Your task to perform on an android device: open chrome and create a bookmark for the current page Image 0: 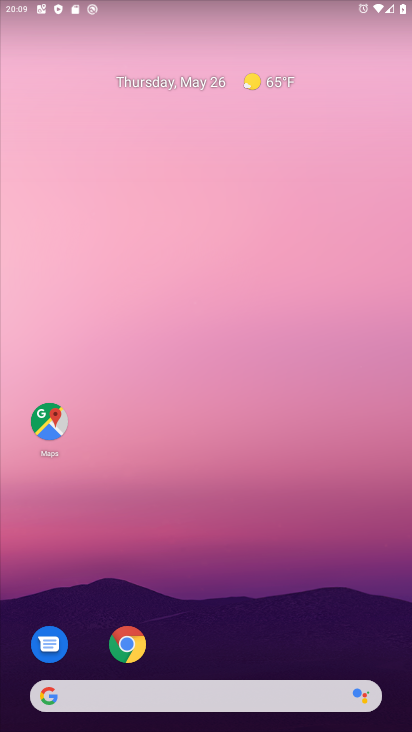
Step 0: click (227, 107)
Your task to perform on an android device: open chrome and create a bookmark for the current page Image 1: 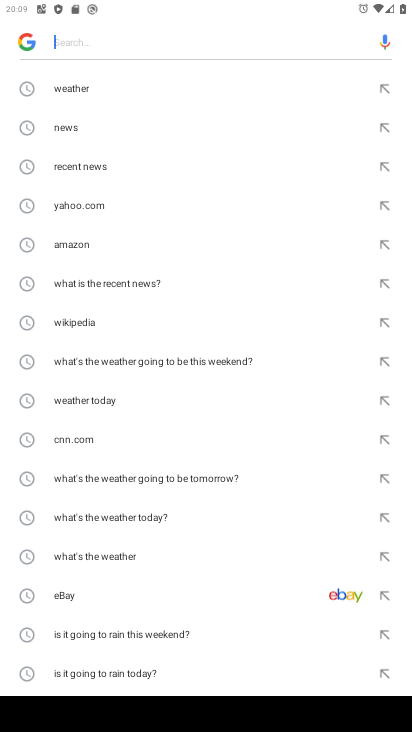
Step 1: press home button
Your task to perform on an android device: open chrome and create a bookmark for the current page Image 2: 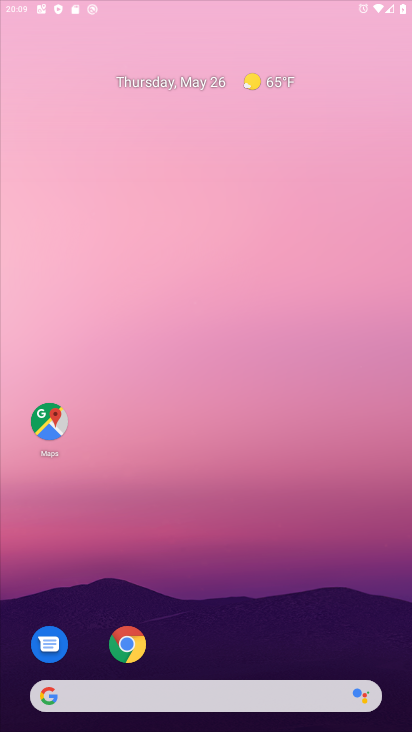
Step 2: drag from (193, 639) to (315, 20)
Your task to perform on an android device: open chrome and create a bookmark for the current page Image 3: 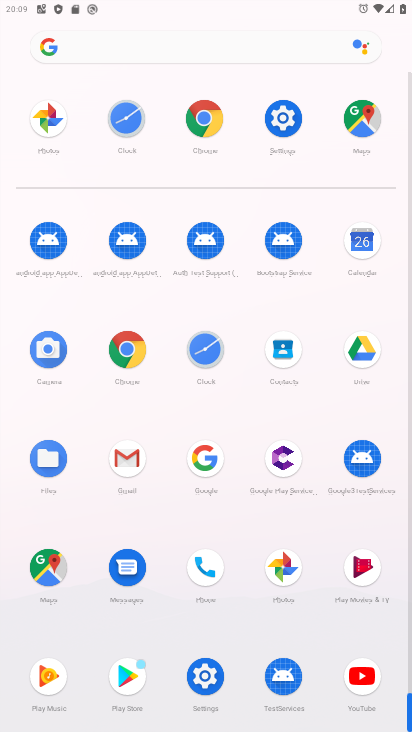
Step 3: click (128, 342)
Your task to perform on an android device: open chrome and create a bookmark for the current page Image 4: 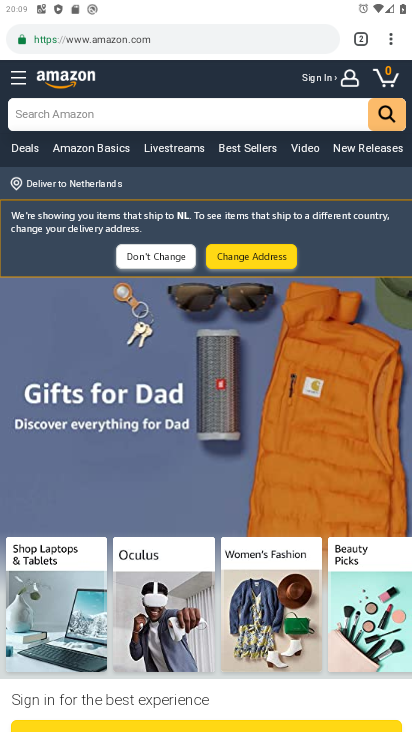
Step 4: click (390, 28)
Your task to perform on an android device: open chrome and create a bookmark for the current page Image 5: 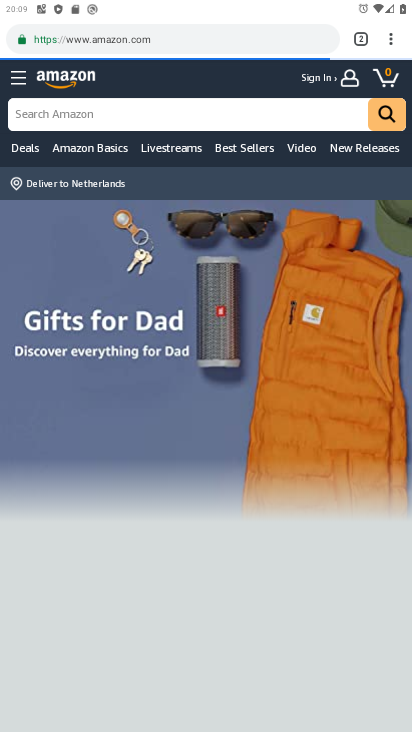
Step 5: click (390, 27)
Your task to perform on an android device: open chrome and create a bookmark for the current page Image 6: 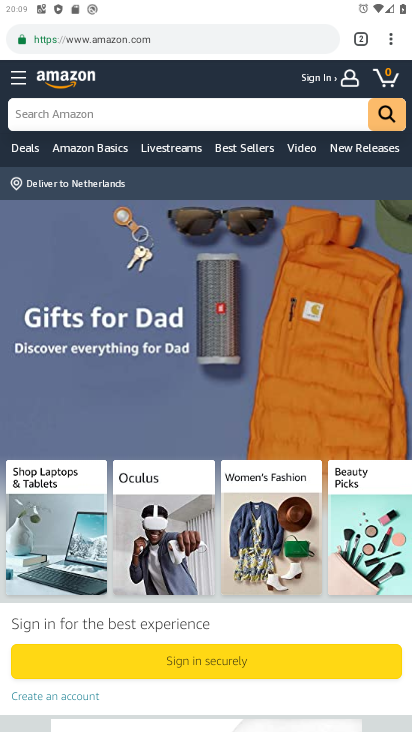
Step 6: click (387, 38)
Your task to perform on an android device: open chrome and create a bookmark for the current page Image 7: 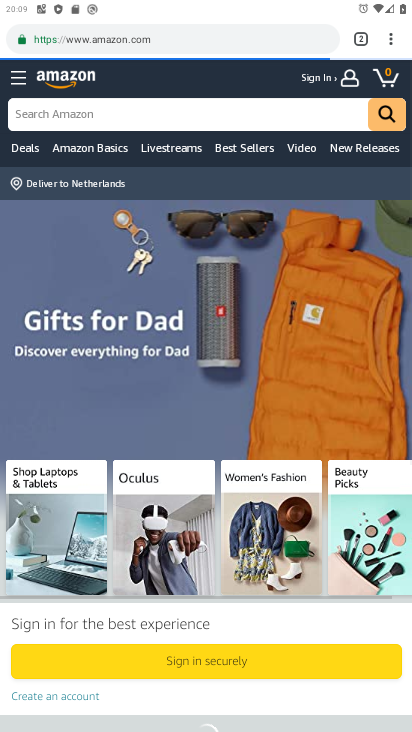
Step 7: click (386, 39)
Your task to perform on an android device: open chrome and create a bookmark for the current page Image 8: 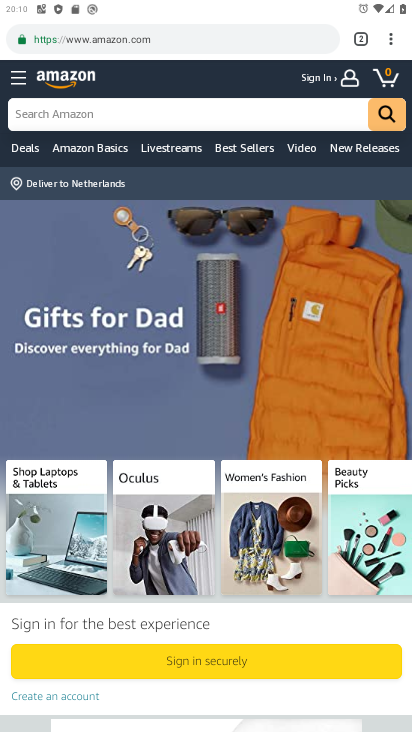
Step 8: click (397, 45)
Your task to perform on an android device: open chrome and create a bookmark for the current page Image 9: 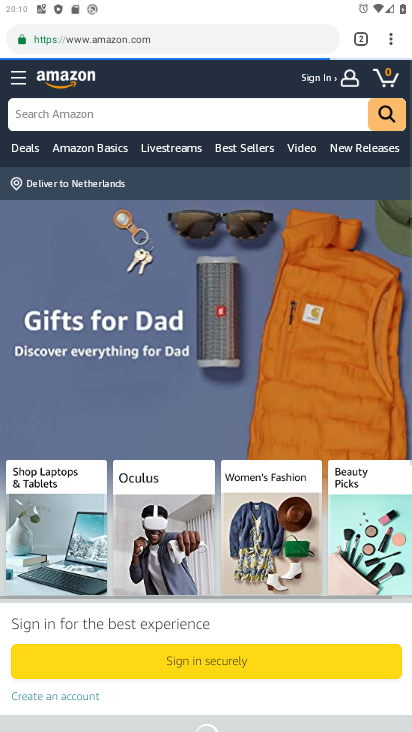
Step 9: click (397, 45)
Your task to perform on an android device: open chrome and create a bookmark for the current page Image 10: 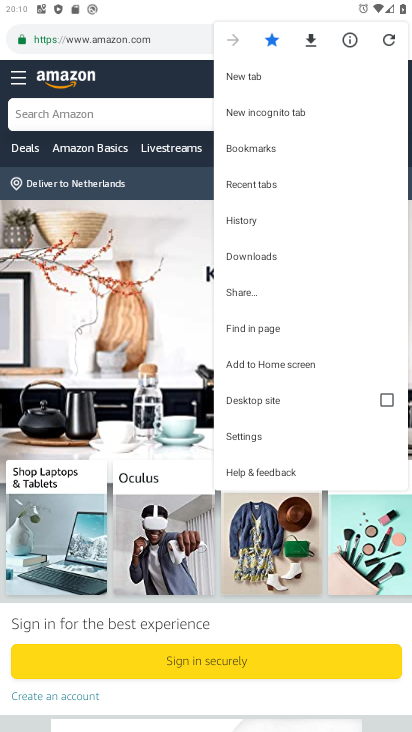
Step 10: click (146, 577)
Your task to perform on an android device: open chrome and create a bookmark for the current page Image 11: 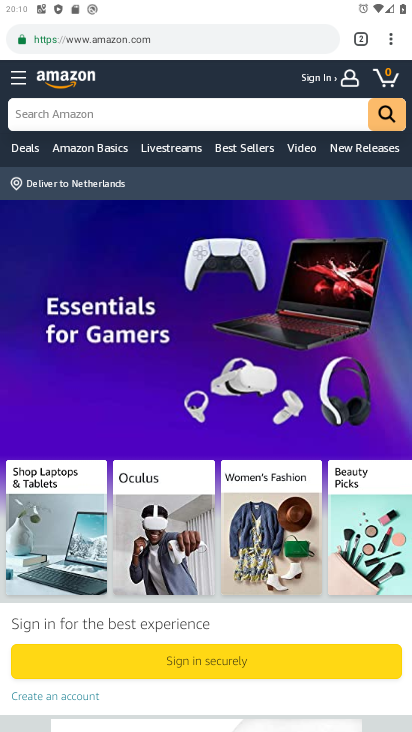
Step 11: click (154, 498)
Your task to perform on an android device: open chrome and create a bookmark for the current page Image 12: 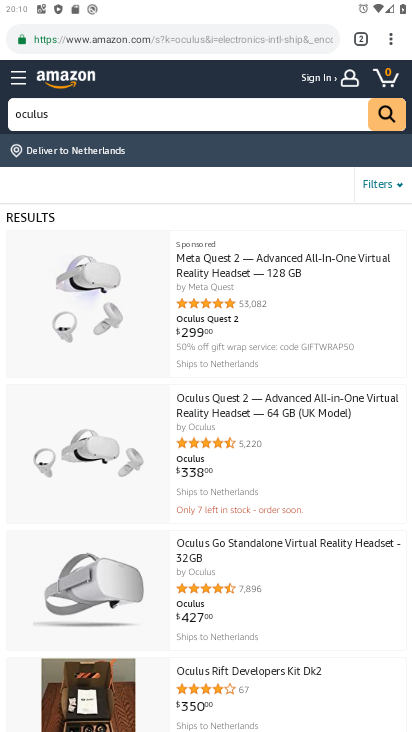
Step 12: click (393, 32)
Your task to perform on an android device: open chrome and create a bookmark for the current page Image 13: 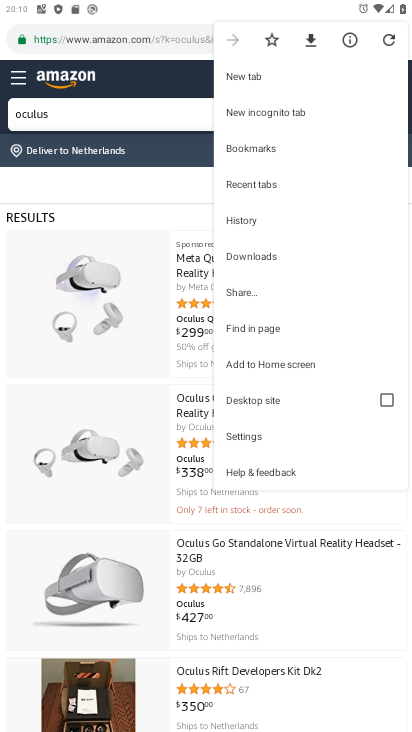
Step 13: click (279, 46)
Your task to perform on an android device: open chrome and create a bookmark for the current page Image 14: 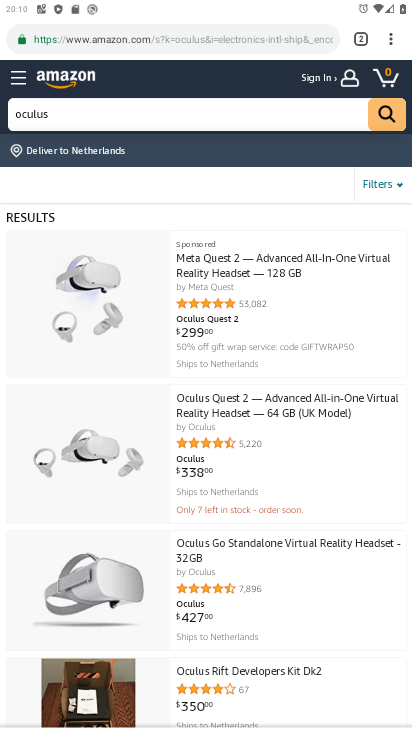
Step 14: task complete